Your task to perform on an android device: set the timer Image 0: 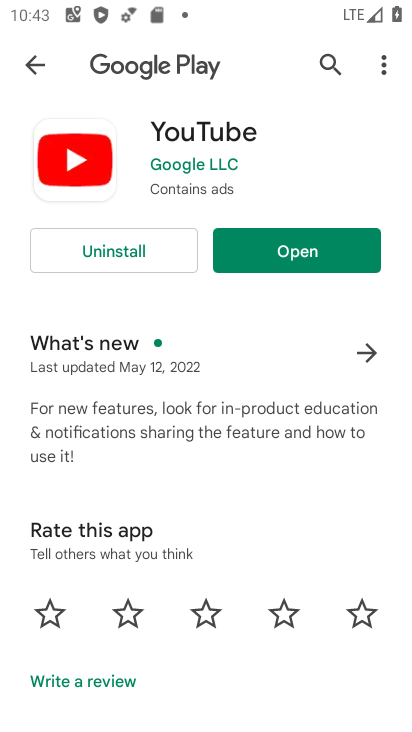
Step 0: press home button
Your task to perform on an android device: set the timer Image 1: 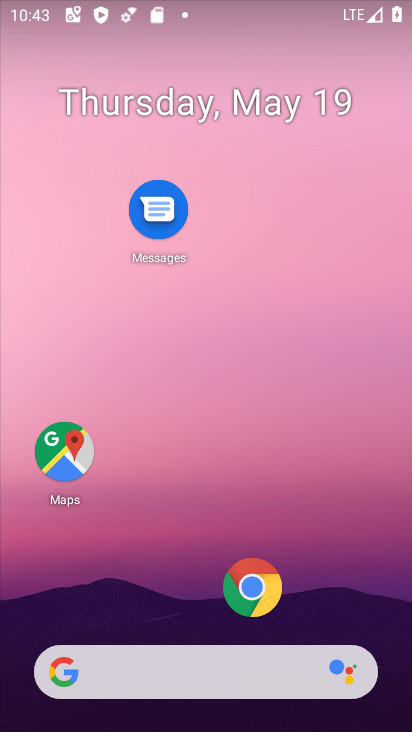
Step 1: drag from (188, 617) to (316, 30)
Your task to perform on an android device: set the timer Image 2: 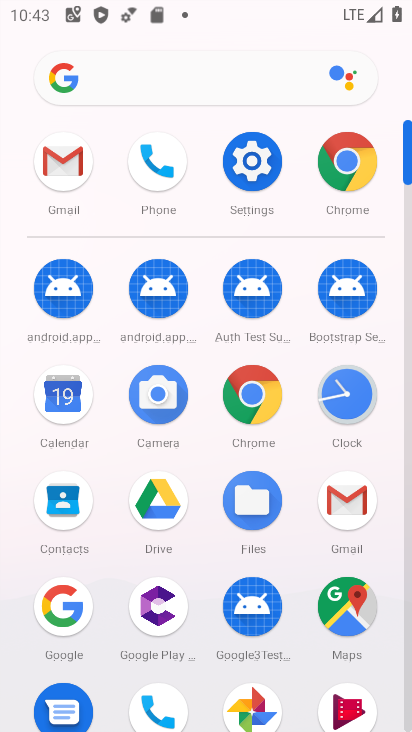
Step 2: click (367, 399)
Your task to perform on an android device: set the timer Image 3: 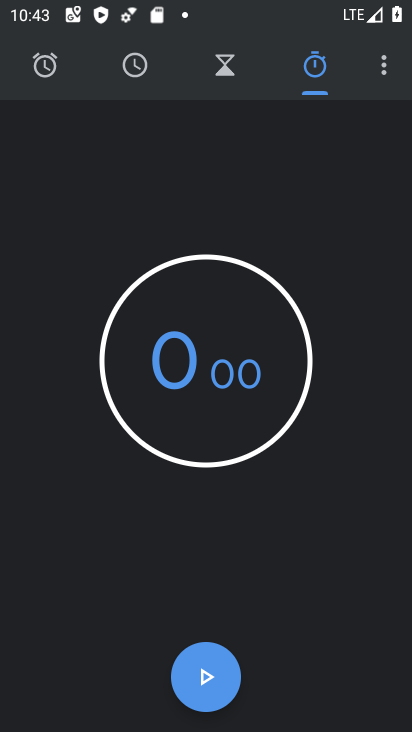
Step 3: click (237, 88)
Your task to perform on an android device: set the timer Image 4: 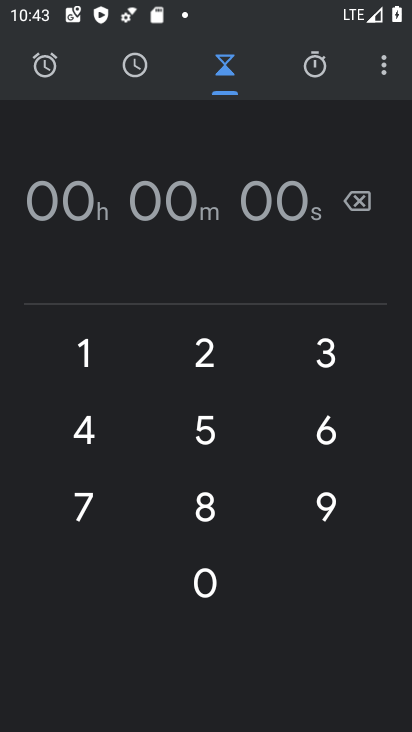
Step 4: click (217, 380)
Your task to perform on an android device: set the timer Image 5: 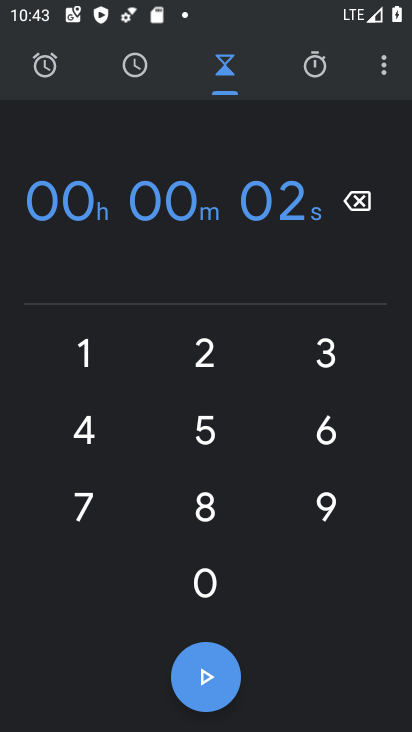
Step 5: click (215, 689)
Your task to perform on an android device: set the timer Image 6: 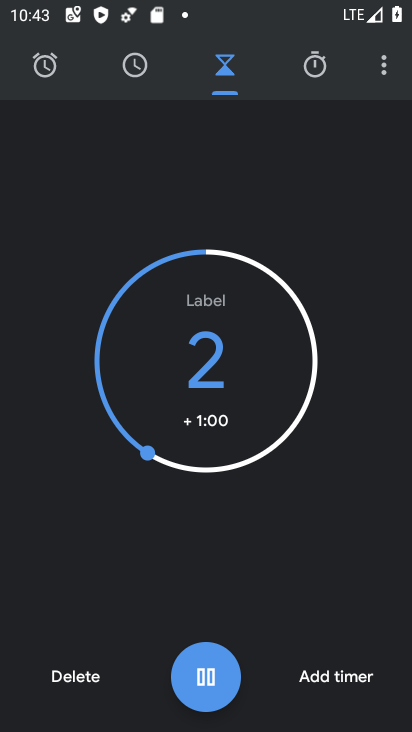
Step 6: task complete